Your task to perform on an android device: turn notification dots off Image 0: 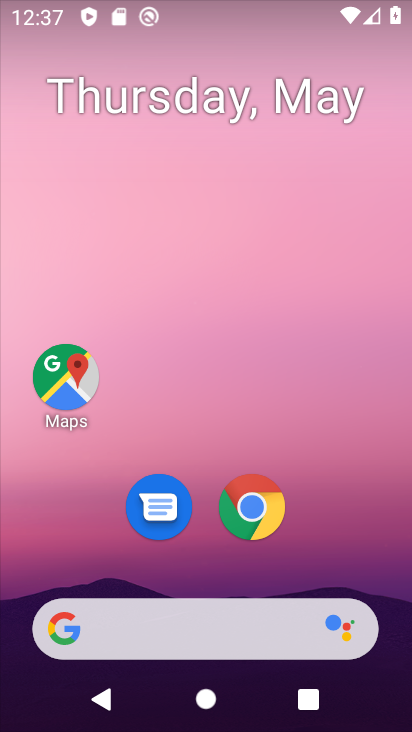
Step 0: drag from (307, 556) to (286, 27)
Your task to perform on an android device: turn notification dots off Image 1: 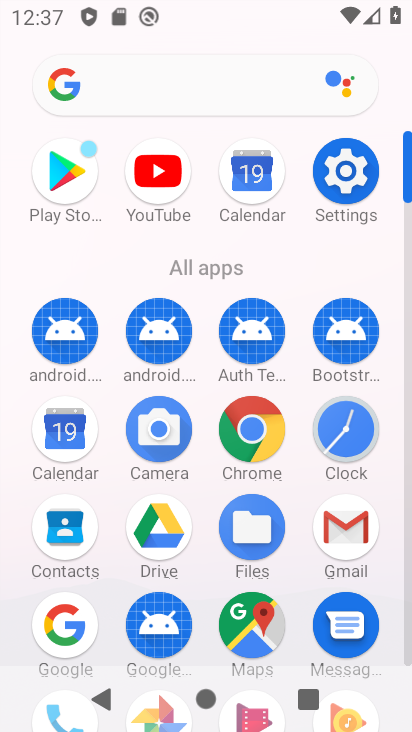
Step 1: click (340, 201)
Your task to perform on an android device: turn notification dots off Image 2: 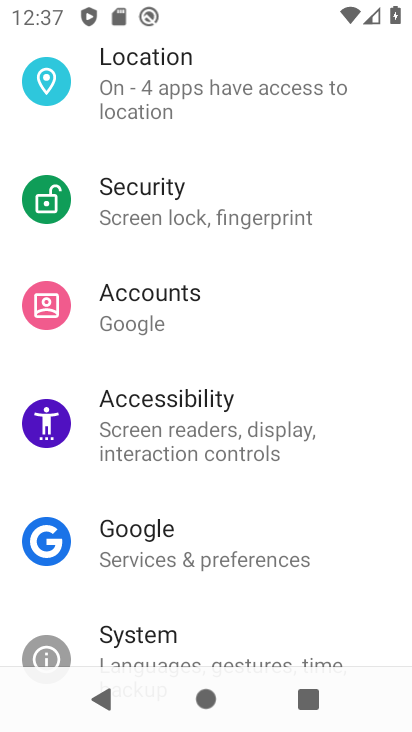
Step 2: drag from (249, 237) to (214, 486)
Your task to perform on an android device: turn notification dots off Image 3: 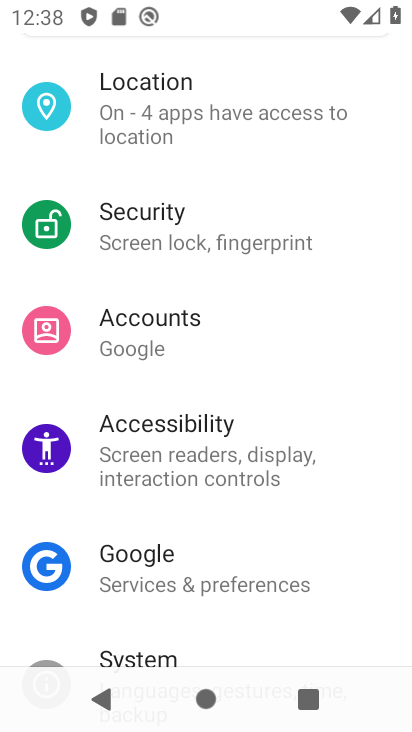
Step 3: drag from (189, 180) to (119, 518)
Your task to perform on an android device: turn notification dots off Image 4: 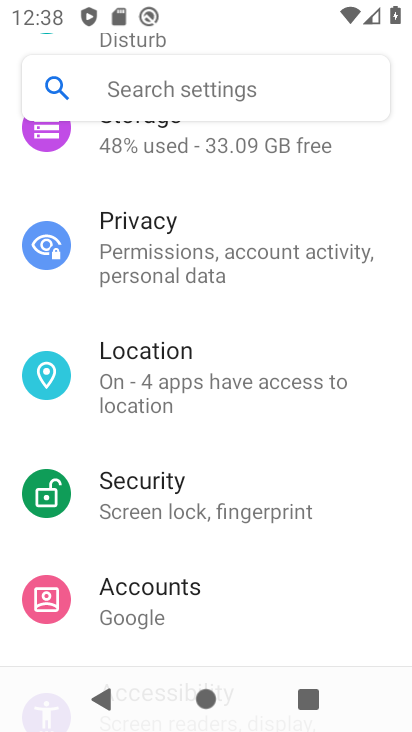
Step 4: drag from (188, 213) to (167, 468)
Your task to perform on an android device: turn notification dots off Image 5: 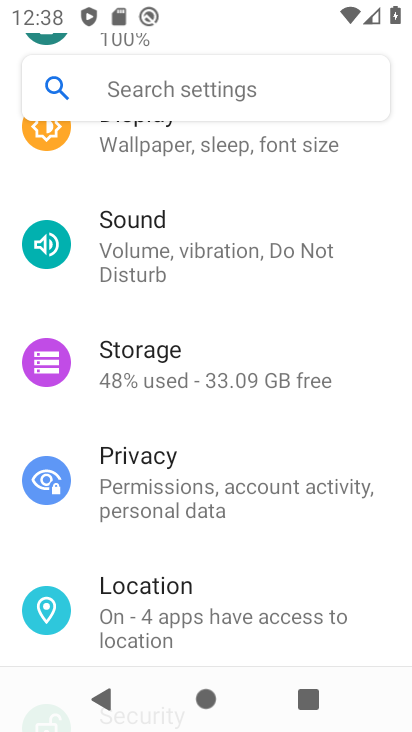
Step 5: drag from (186, 256) to (170, 554)
Your task to perform on an android device: turn notification dots off Image 6: 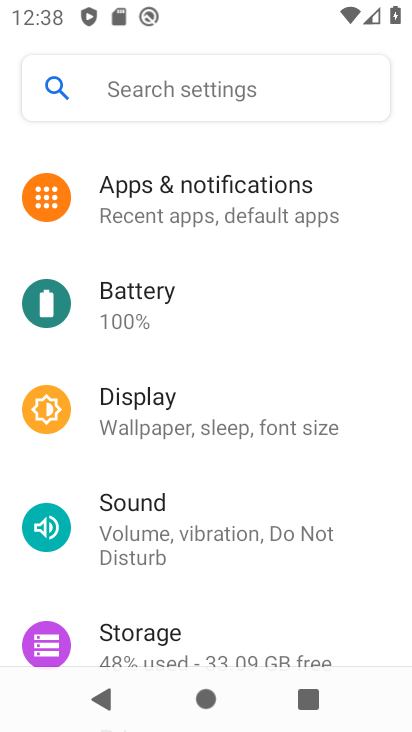
Step 6: click (169, 212)
Your task to perform on an android device: turn notification dots off Image 7: 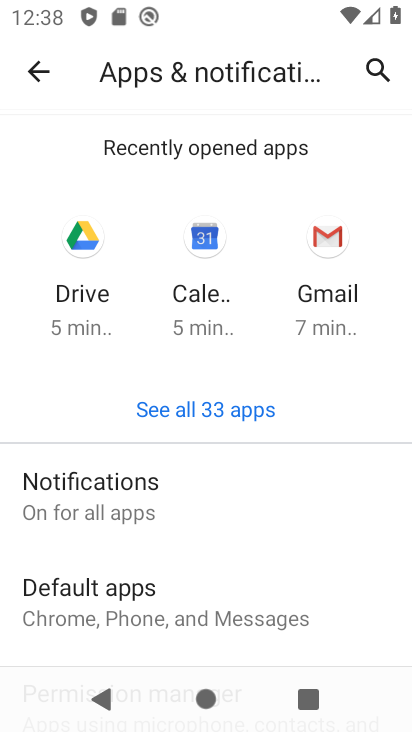
Step 7: click (43, 505)
Your task to perform on an android device: turn notification dots off Image 8: 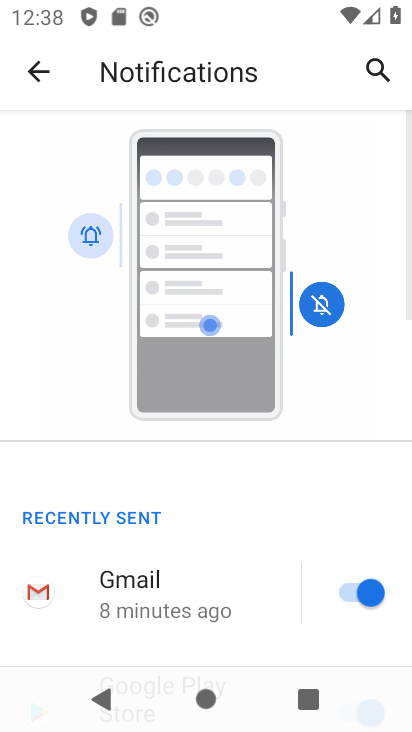
Step 8: drag from (111, 247) to (166, 13)
Your task to perform on an android device: turn notification dots off Image 9: 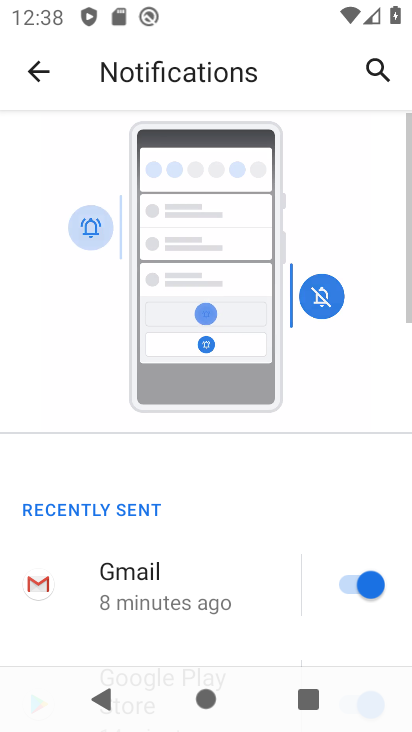
Step 9: drag from (120, 623) to (180, 256)
Your task to perform on an android device: turn notification dots off Image 10: 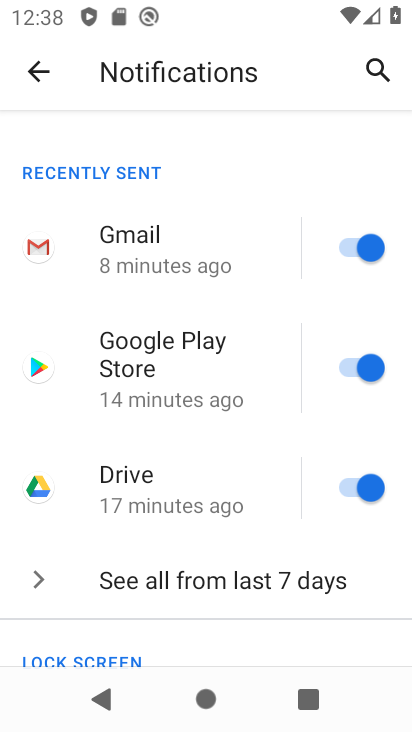
Step 10: drag from (139, 610) to (145, 232)
Your task to perform on an android device: turn notification dots off Image 11: 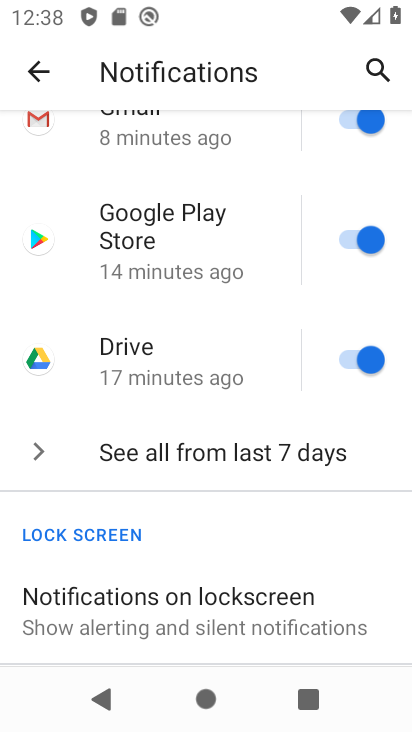
Step 11: drag from (136, 608) to (137, 260)
Your task to perform on an android device: turn notification dots off Image 12: 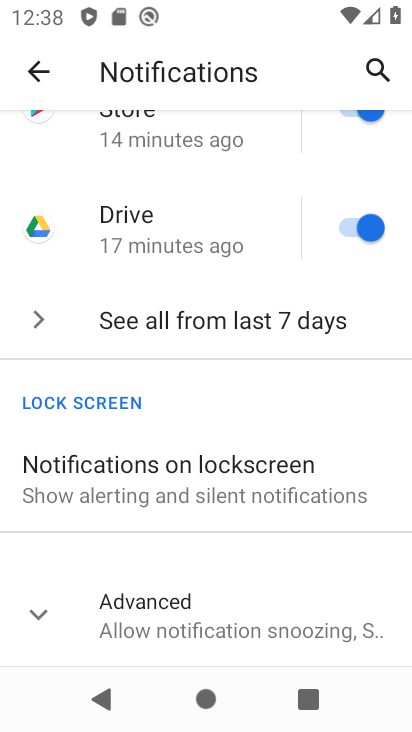
Step 12: click (128, 600)
Your task to perform on an android device: turn notification dots off Image 13: 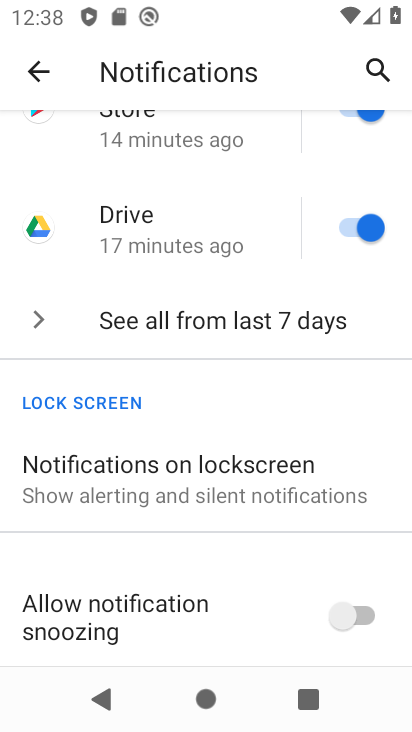
Step 13: drag from (137, 635) to (174, 212)
Your task to perform on an android device: turn notification dots off Image 14: 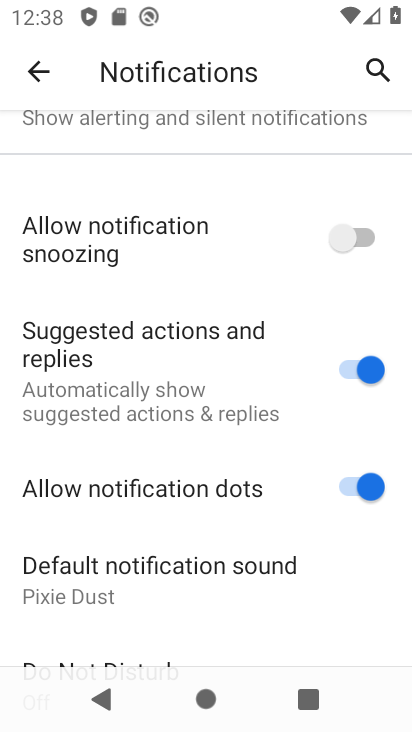
Step 14: click (352, 488)
Your task to perform on an android device: turn notification dots off Image 15: 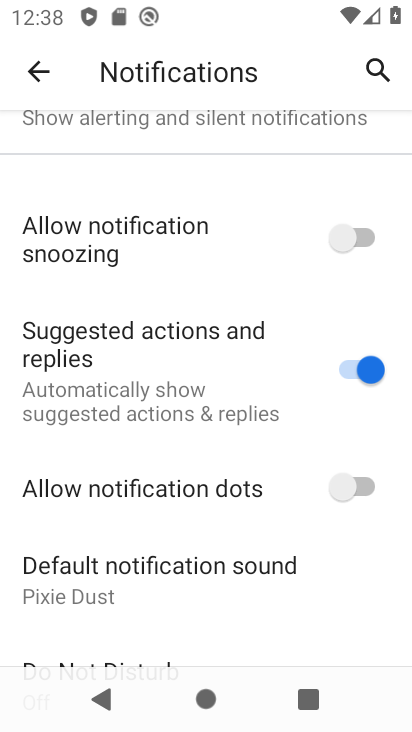
Step 15: task complete